Your task to perform on an android device: Go to Wikipedia Image 0: 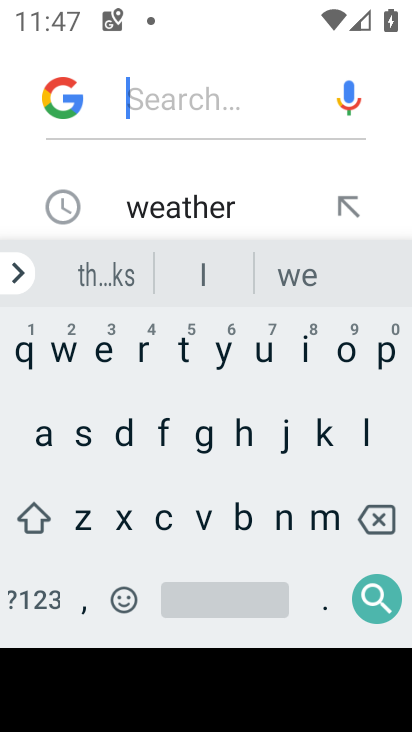
Step 0: press home button
Your task to perform on an android device: Go to Wikipedia Image 1: 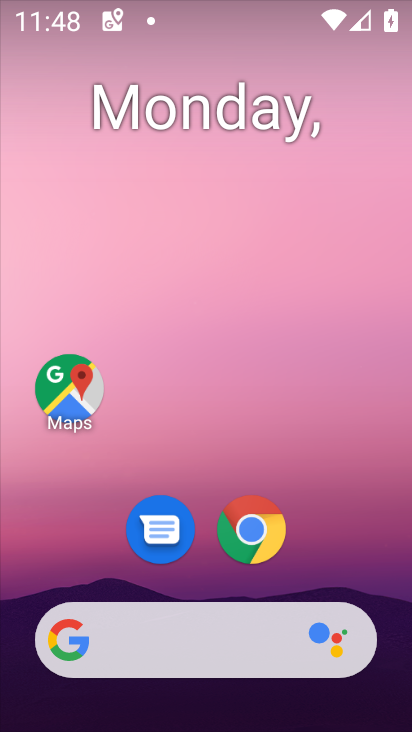
Step 1: drag from (229, 681) to (282, 231)
Your task to perform on an android device: Go to Wikipedia Image 2: 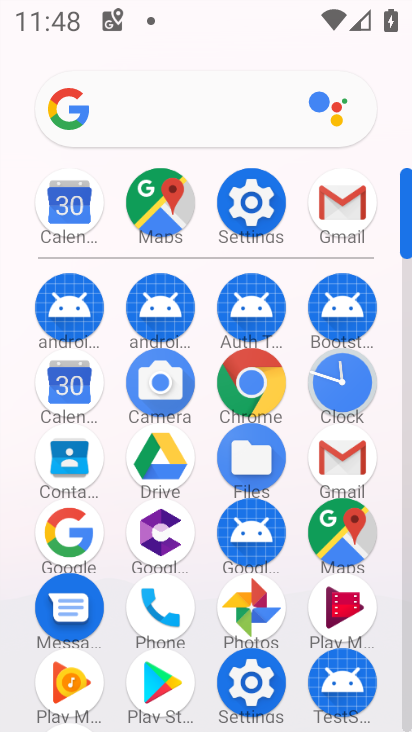
Step 2: click (264, 376)
Your task to perform on an android device: Go to Wikipedia Image 3: 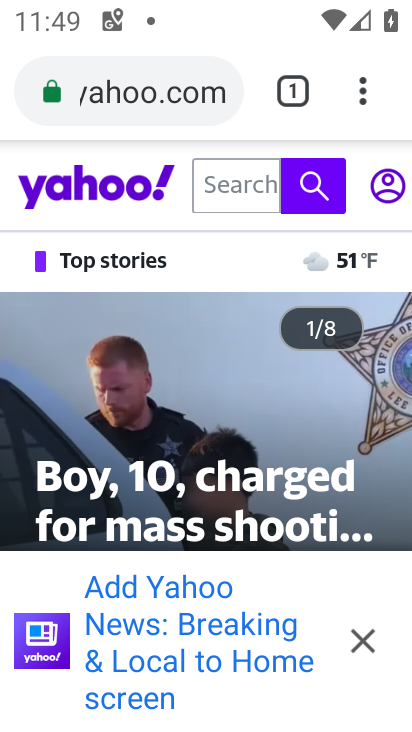
Step 3: click (367, 88)
Your task to perform on an android device: Go to Wikipedia Image 4: 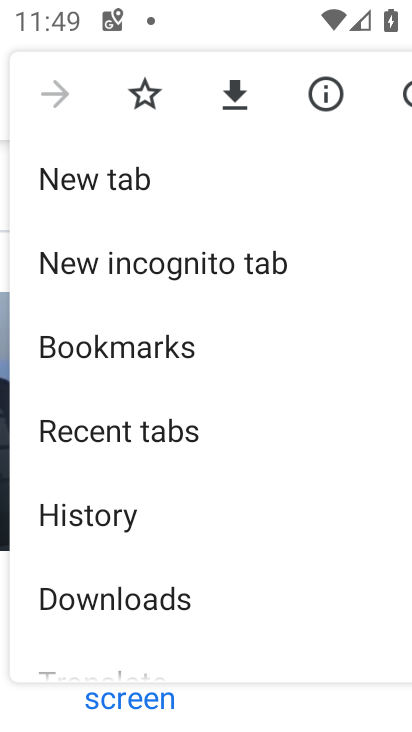
Step 4: click (127, 179)
Your task to perform on an android device: Go to Wikipedia Image 5: 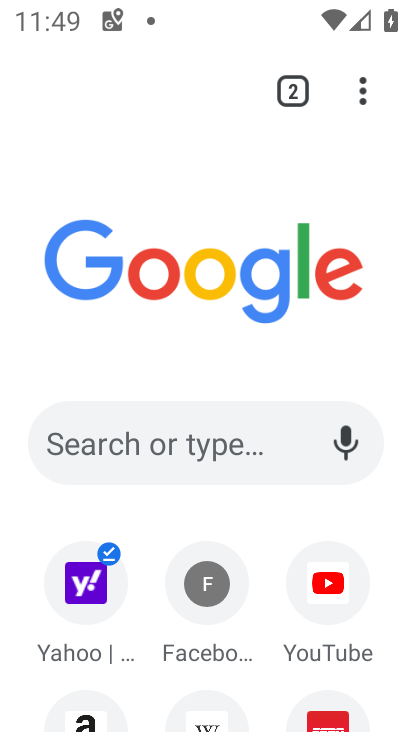
Step 5: click (200, 713)
Your task to perform on an android device: Go to Wikipedia Image 6: 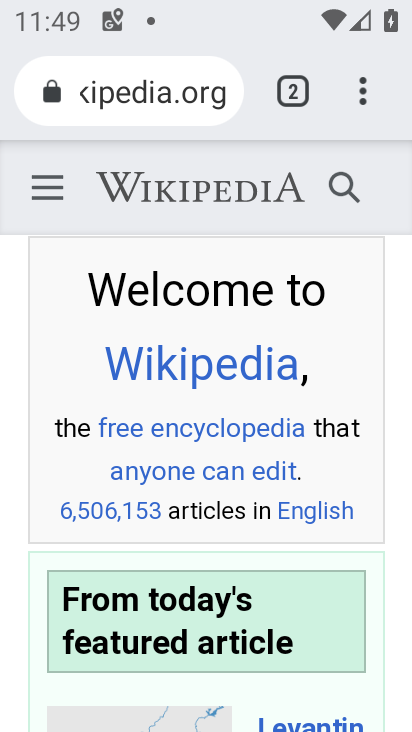
Step 6: task complete